Your task to perform on an android device: Go to Yahoo.com Image 0: 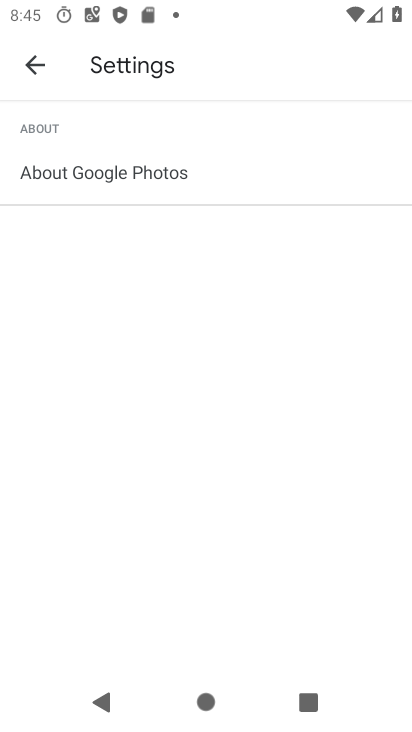
Step 0: press home button
Your task to perform on an android device: Go to Yahoo.com Image 1: 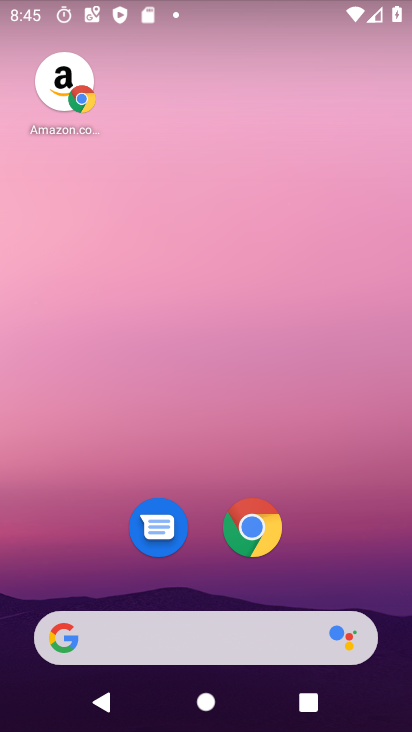
Step 1: drag from (336, 552) to (259, 5)
Your task to perform on an android device: Go to Yahoo.com Image 2: 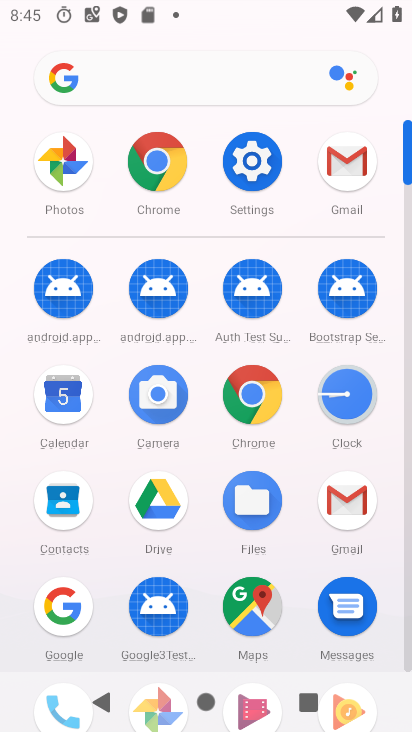
Step 2: click (144, 171)
Your task to perform on an android device: Go to Yahoo.com Image 3: 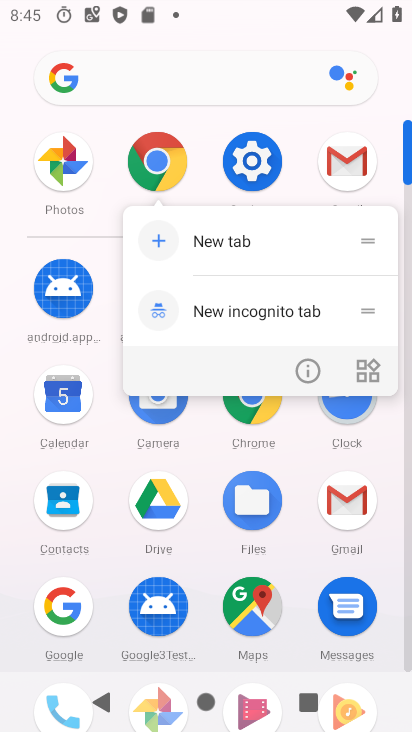
Step 3: click (143, 171)
Your task to perform on an android device: Go to Yahoo.com Image 4: 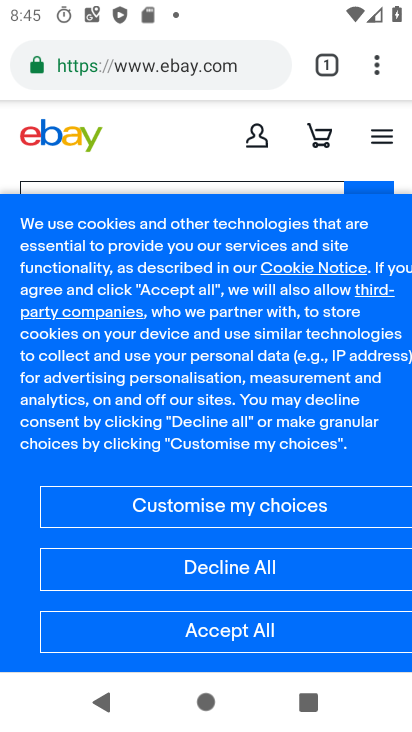
Step 4: click (199, 61)
Your task to perform on an android device: Go to Yahoo.com Image 5: 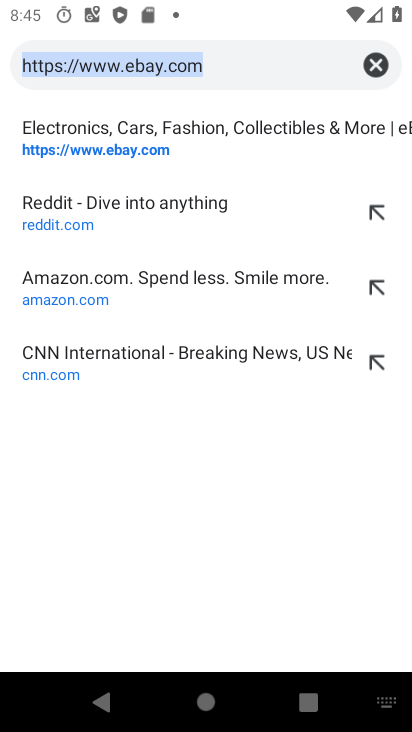
Step 5: click (378, 65)
Your task to perform on an android device: Go to Yahoo.com Image 6: 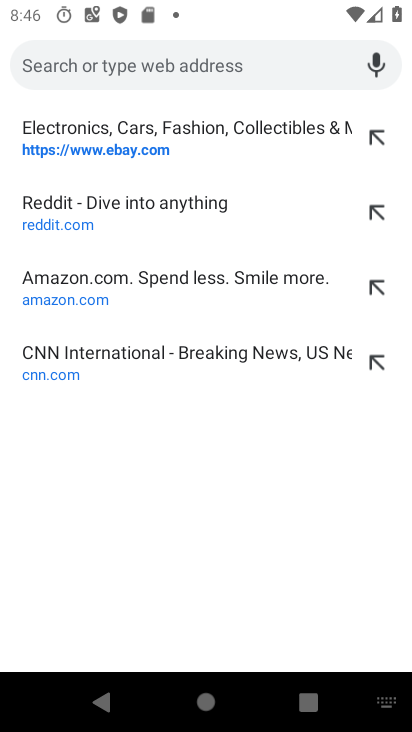
Step 6: type "yahoo"
Your task to perform on an android device: Go to Yahoo.com Image 7: 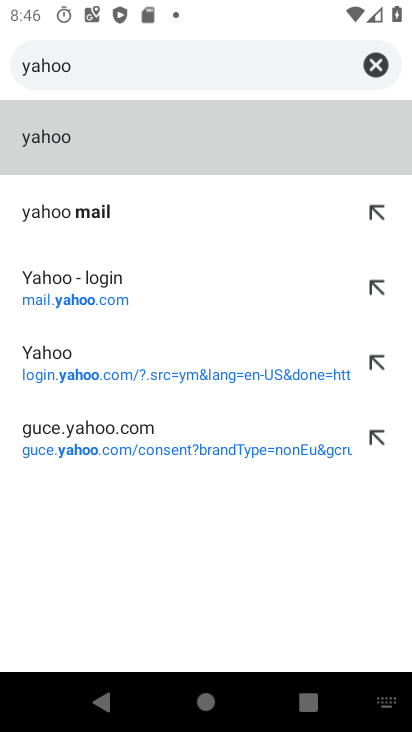
Step 7: click (73, 272)
Your task to perform on an android device: Go to Yahoo.com Image 8: 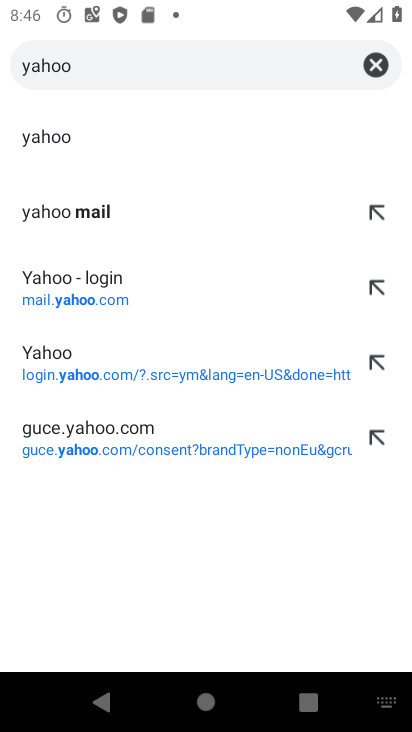
Step 8: click (73, 271)
Your task to perform on an android device: Go to Yahoo.com Image 9: 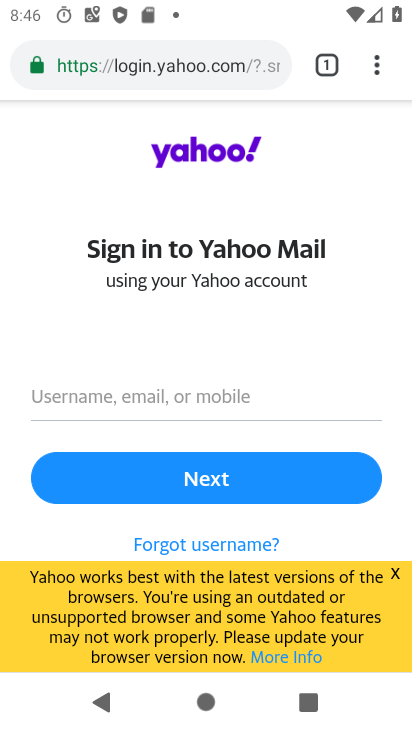
Step 9: task complete